Your task to perform on an android device: Check the news Image 0: 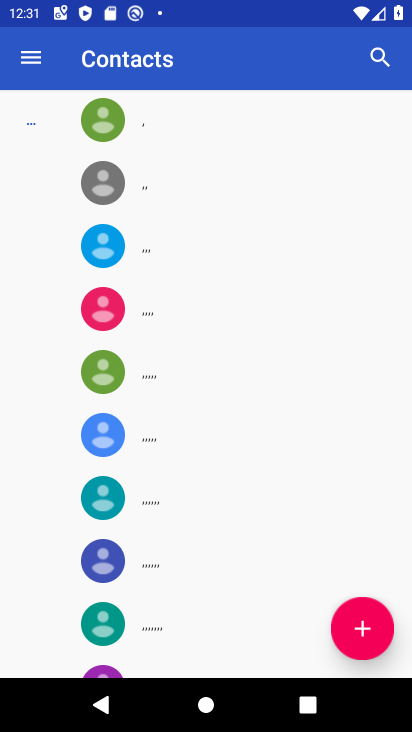
Step 0: press home button
Your task to perform on an android device: Check the news Image 1: 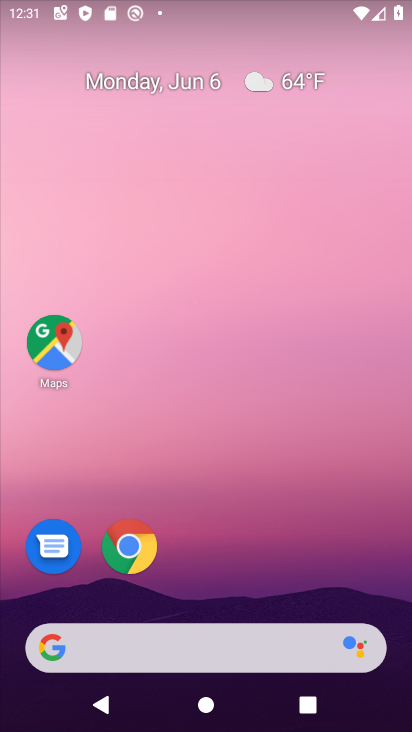
Step 1: click (122, 548)
Your task to perform on an android device: Check the news Image 2: 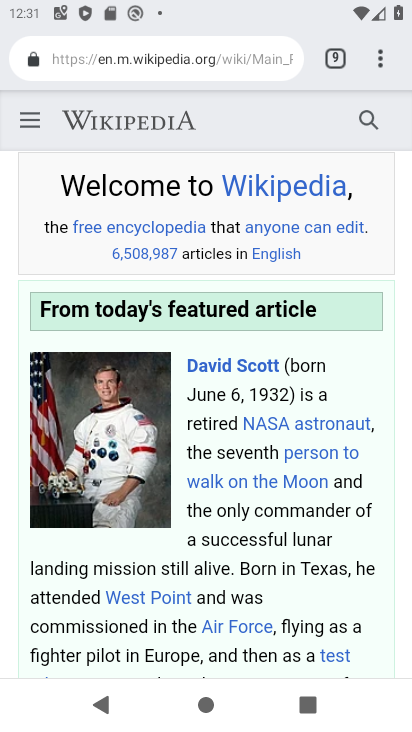
Step 2: click (373, 58)
Your task to perform on an android device: Check the news Image 3: 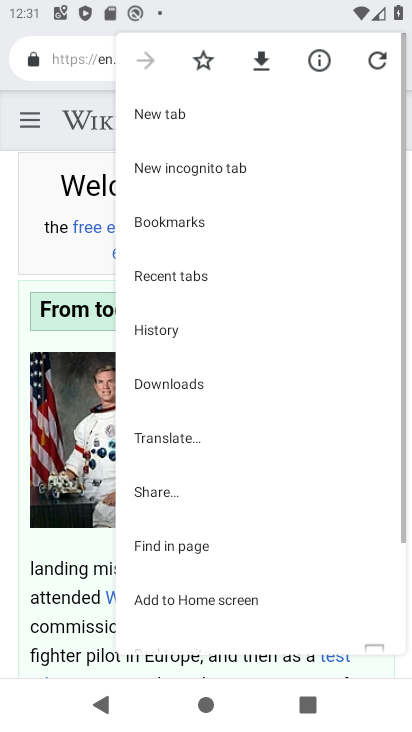
Step 3: click (137, 102)
Your task to perform on an android device: Check the news Image 4: 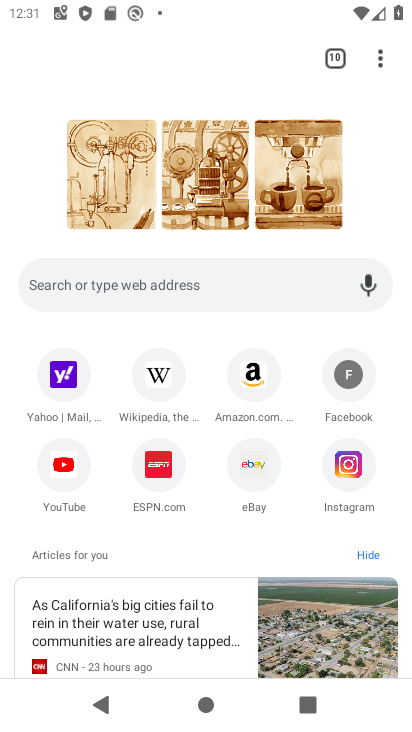
Step 4: click (157, 276)
Your task to perform on an android device: Check the news Image 5: 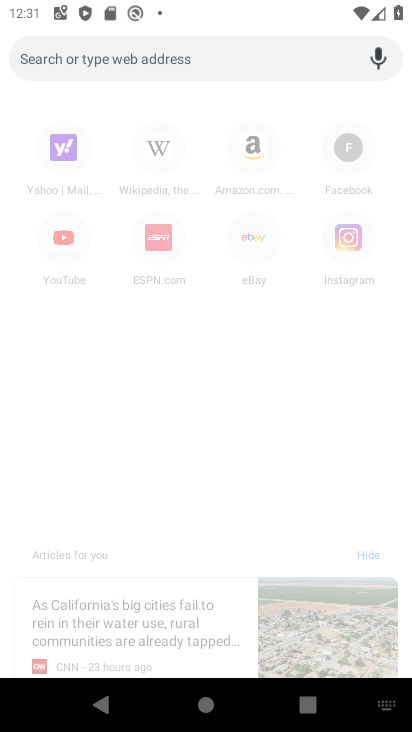
Step 5: type "Check the news"
Your task to perform on an android device: Check the news Image 6: 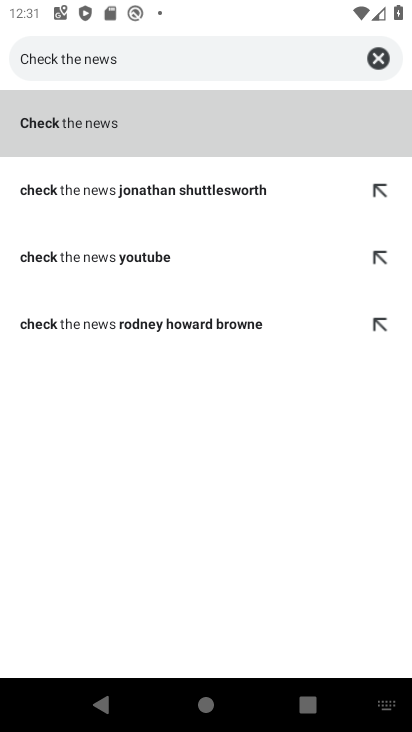
Step 6: click (188, 114)
Your task to perform on an android device: Check the news Image 7: 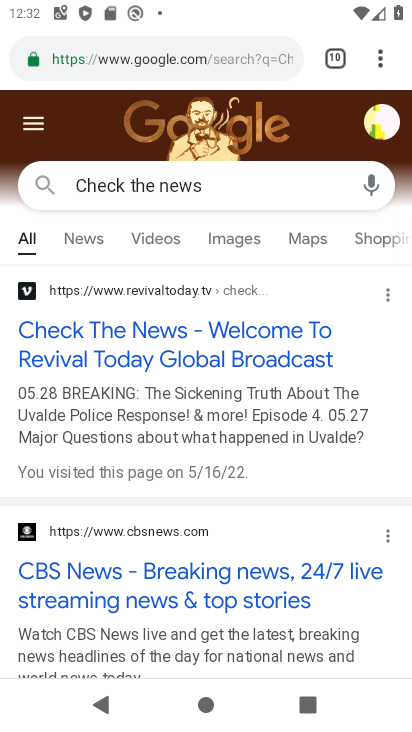
Step 7: task complete